Your task to perform on an android device: Open calendar and show me the fourth week of next month Image 0: 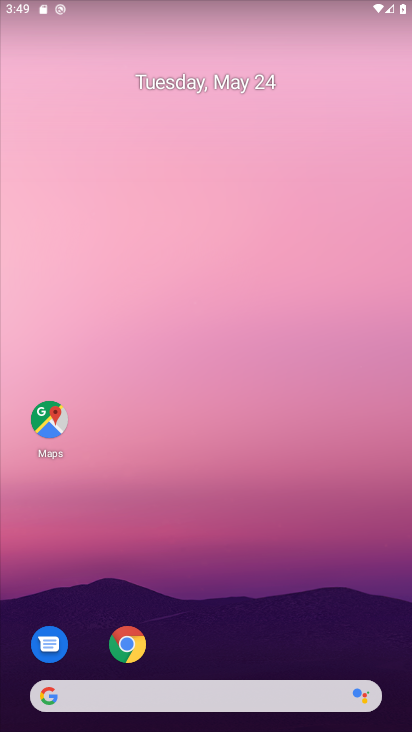
Step 0: drag from (206, 658) to (318, 65)
Your task to perform on an android device: Open calendar and show me the fourth week of next month Image 1: 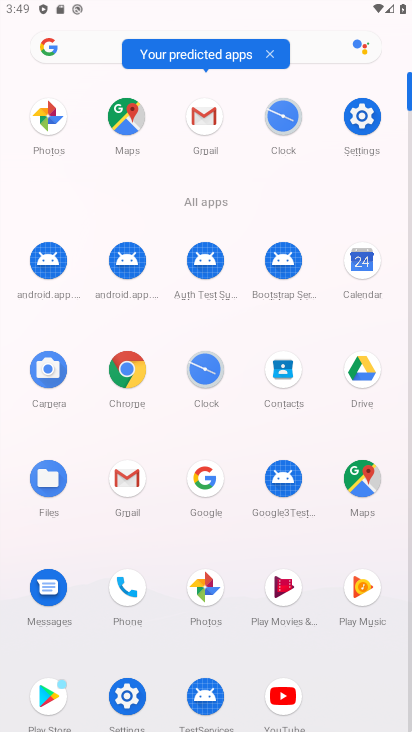
Step 1: click (351, 271)
Your task to perform on an android device: Open calendar and show me the fourth week of next month Image 2: 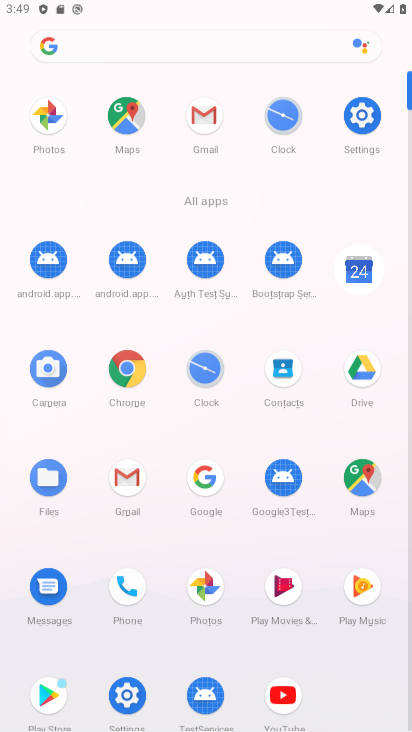
Step 2: click (367, 258)
Your task to perform on an android device: Open calendar and show me the fourth week of next month Image 3: 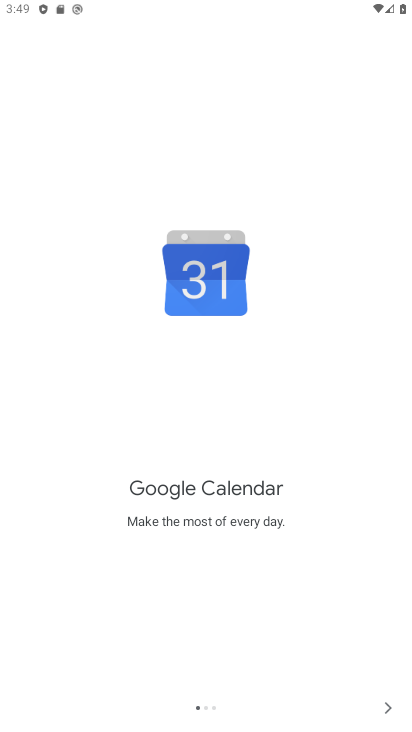
Step 3: click (377, 689)
Your task to perform on an android device: Open calendar and show me the fourth week of next month Image 4: 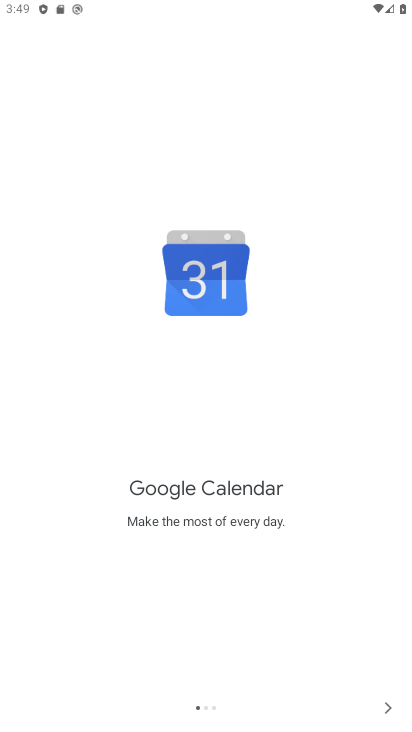
Step 4: click (390, 725)
Your task to perform on an android device: Open calendar and show me the fourth week of next month Image 5: 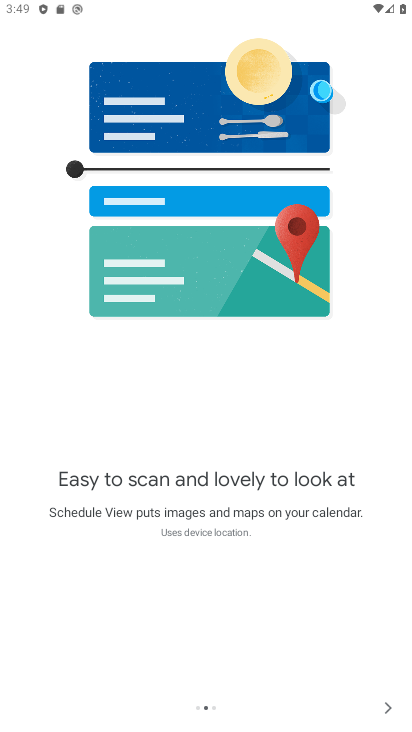
Step 5: click (382, 713)
Your task to perform on an android device: Open calendar and show me the fourth week of next month Image 6: 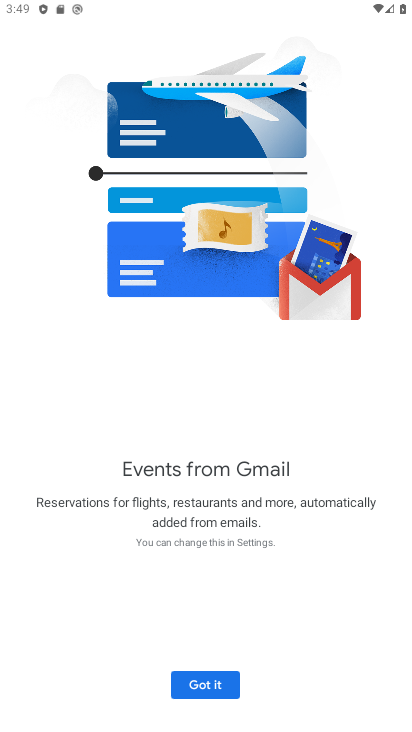
Step 6: click (182, 677)
Your task to perform on an android device: Open calendar and show me the fourth week of next month Image 7: 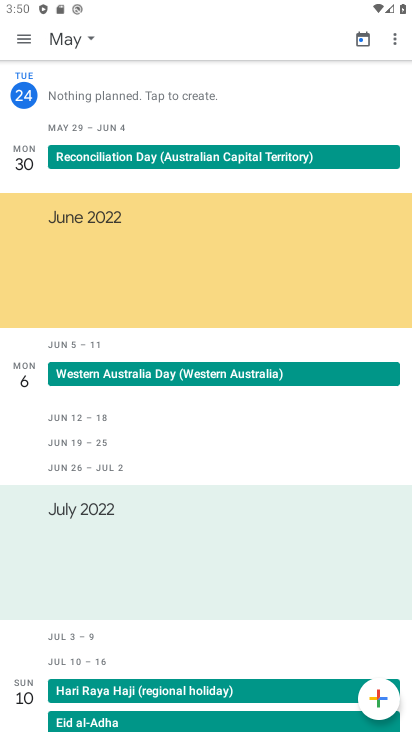
Step 7: click (76, 47)
Your task to perform on an android device: Open calendar and show me the fourth week of next month Image 8: 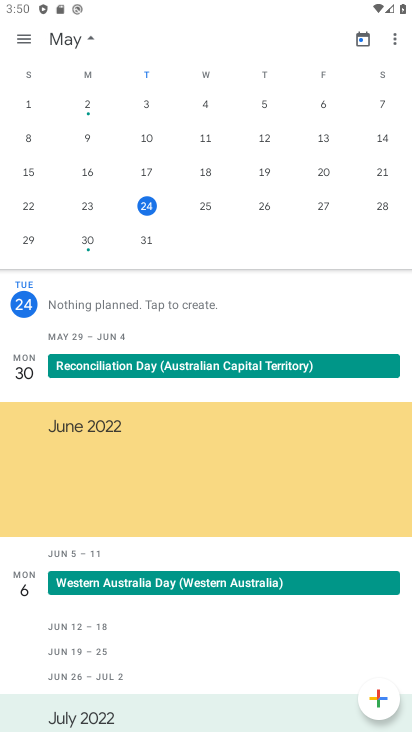
Step 8: drag from (375, 246) to (0, 207)
Your task to perform on an android device: Open calendar and show me the fourth week of next month Image 9: 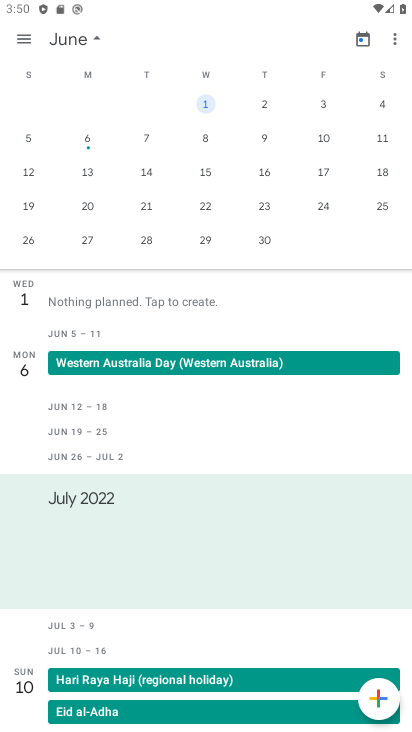
Step 9: click (28, 239)
Your task to perform on an android device: Open calendar and show me the fourth week of next month Image 10: 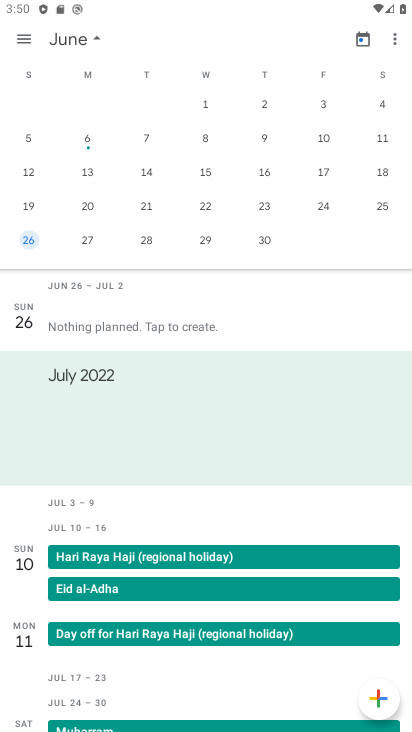
Step 10: click (28, 23)
Your task to perform on an android device: Open calendar and show me the fourth week of next month Image 11: 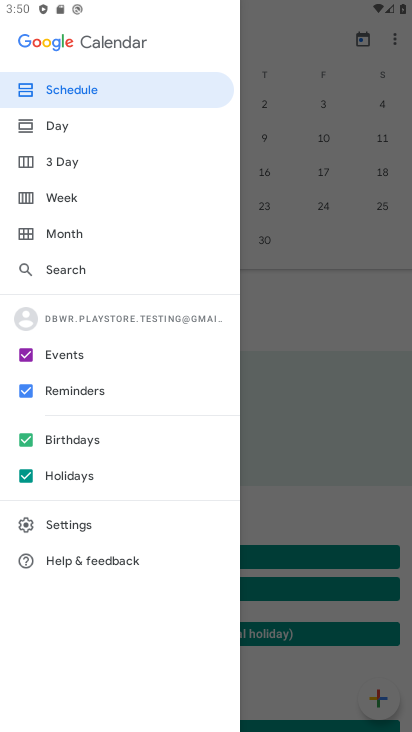
Step 11: click (88, 199)
Your task to perform on an android device: Open calendar and show me the fourth week of next month Image 12: 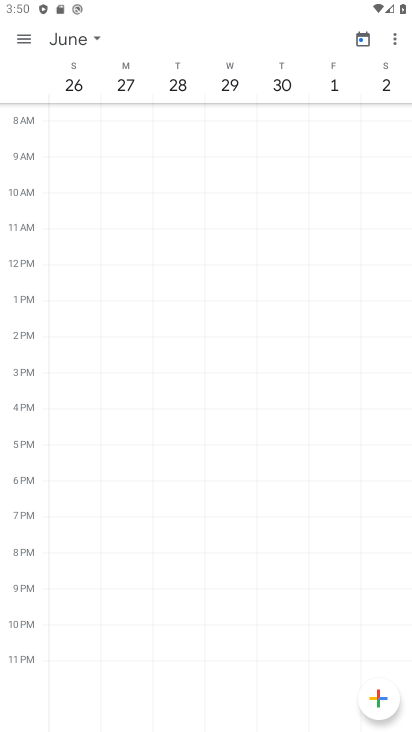
Step 12: task complete